Your task to perform on an android device: Find coffee shops on Maps Image 0: 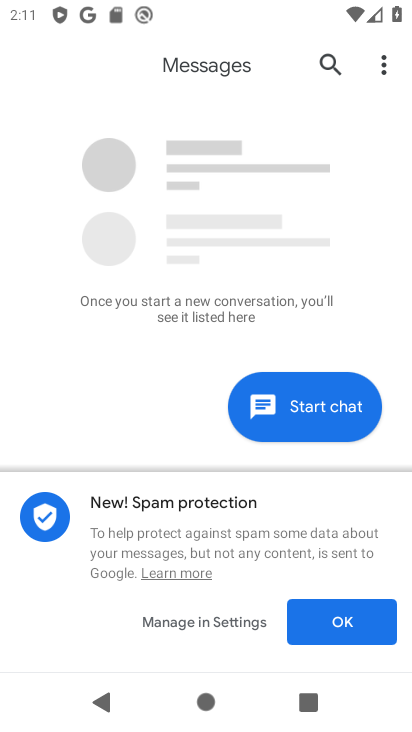
Step 0: press back button
Your task to perform on an android device: Find coffee shops on Maps Image 1: 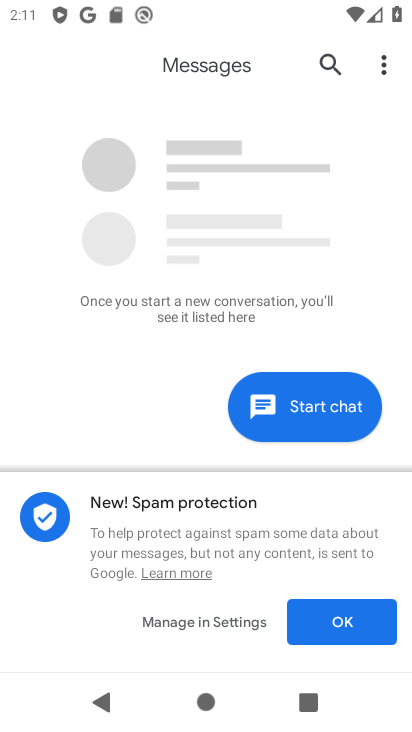
Step 1: press back button
Your task to perform on an android device: Find coffee shops on Maps Image 2: 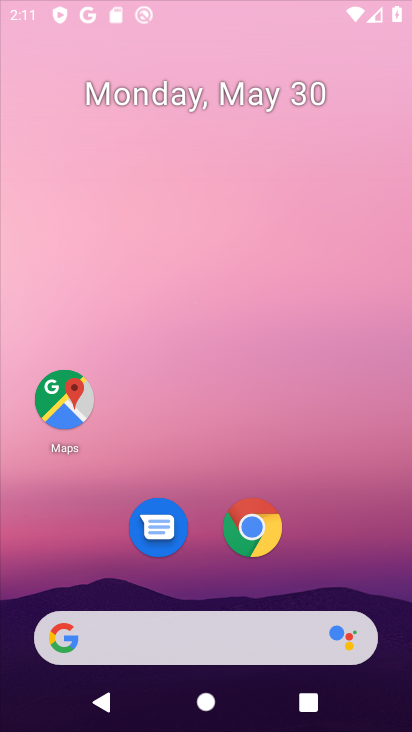
Step 2: press back button
Your task to perform on an android device: Find coffee shops on Maps Image 3: 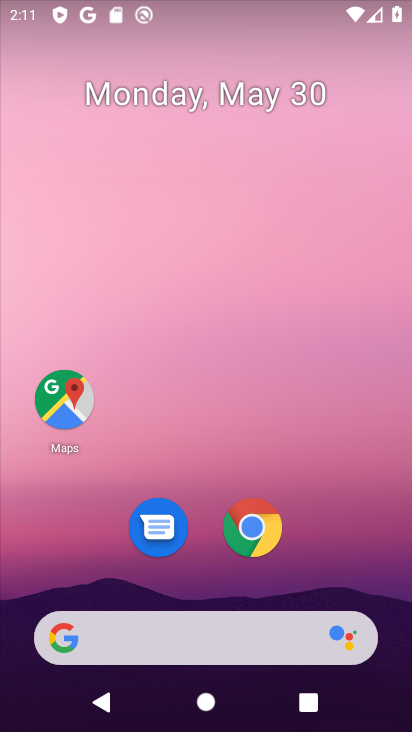
Step 3: drag from (282, 698) to (229, 211)
Your task to perform on an android device: Find coffee shops on Maps Image 4: 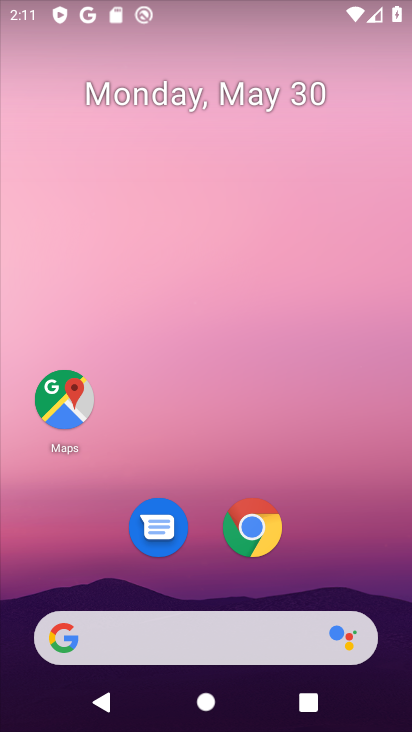
Step 4: drag from (254, 659) to (183, 145)
Your task to perform on an android device: Find coffee shops on Maps Image 5: 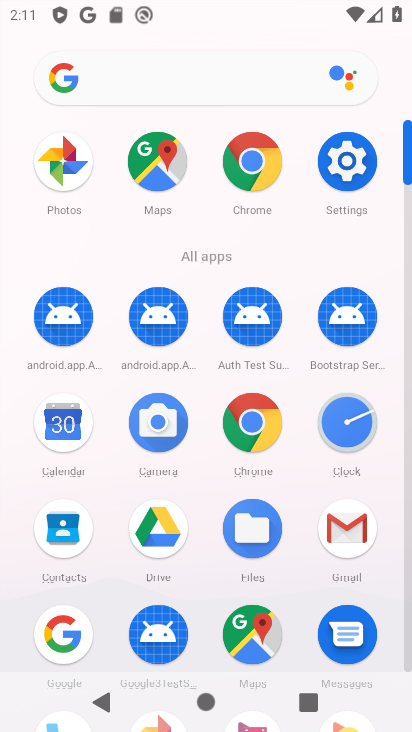
Step 5: click (254, 637)
Your task to perform on an android device: Find coffee shops on Maps Image 6: 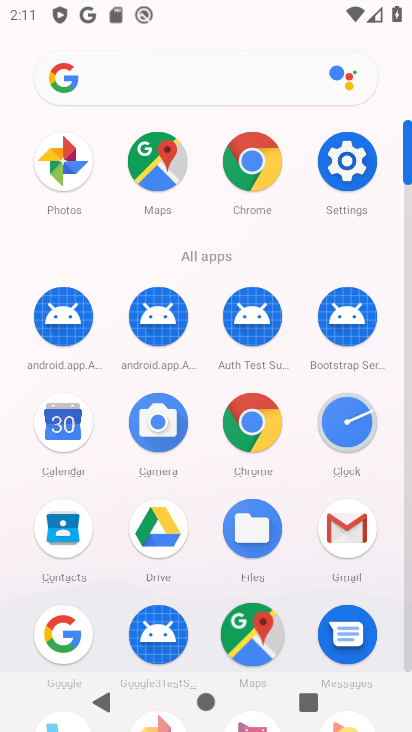
Step 6: click (254, 637)
Your task to perform on an android device: Find coffee shops on Maps Image 7: 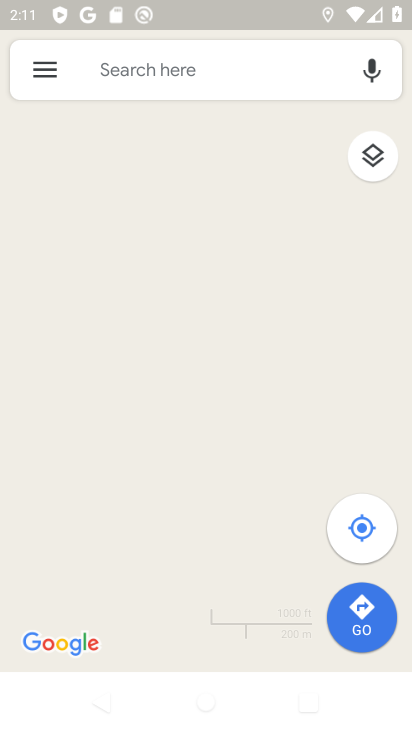
Step 7: click (111, 66)
Your task to perform on an android device: Find coffee shops on Maps Image 8: 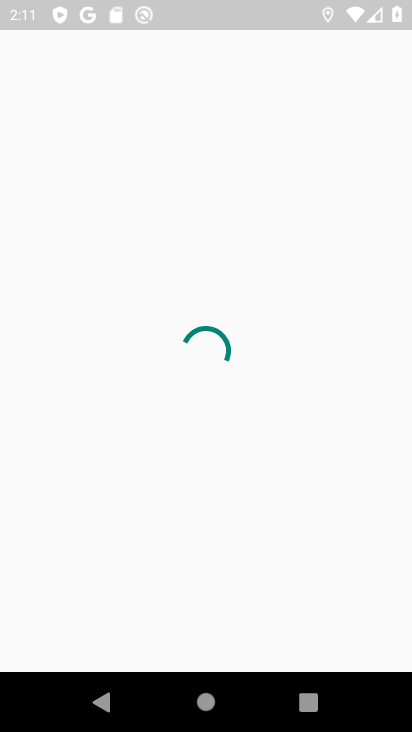
Step 8: click (111, 66)
Your task to perform on an android device: Find coffee shops on Maps Image 9: 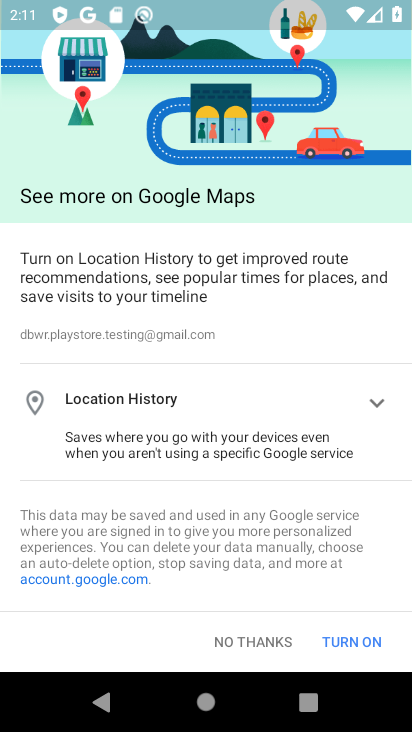
Step 9: click (276, 644)
Your task to perform on an android device: Find coffee shops on Maps Image 10: 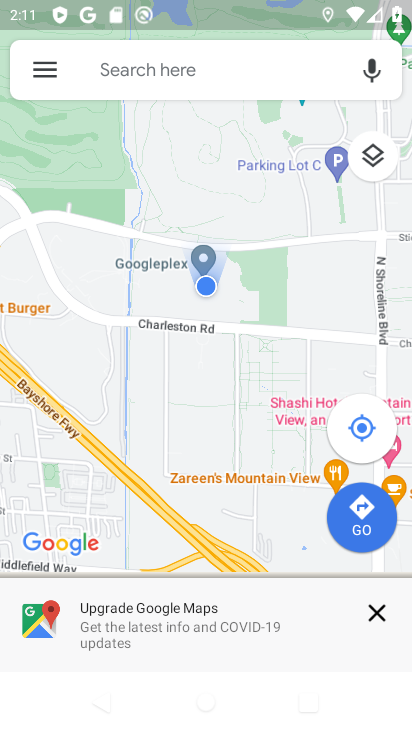
Step 10: click (121, 71)
Your task to perform on an android device: Find coffee shops on Maps Image 11: 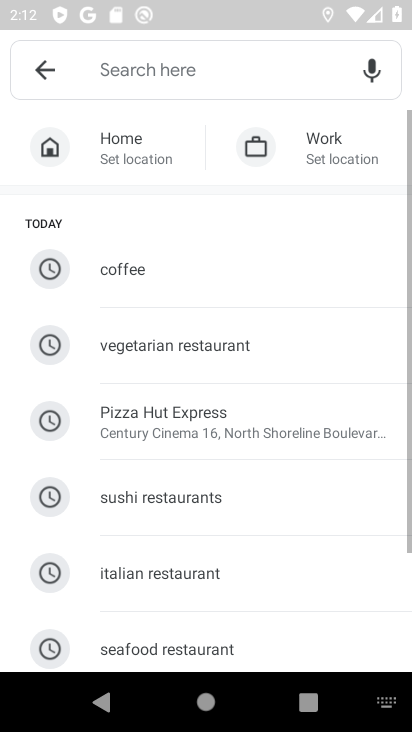
Step 11: click (129, 258)
Your task to perform on an android device: Find coffee shops on Maps Image 12: 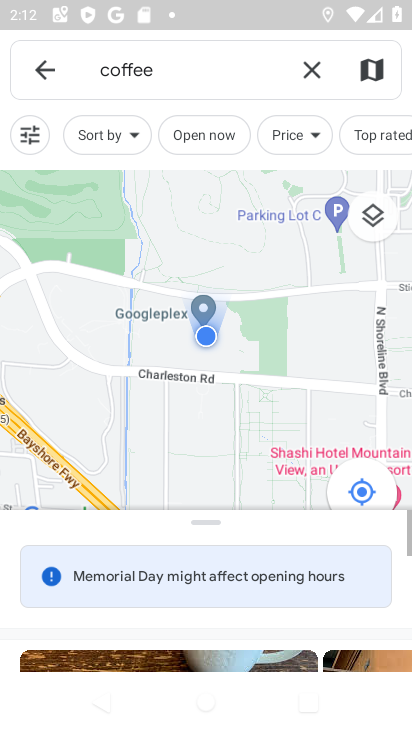
Step 12: task complete